Your task to perform on an android device: What's on my calendar today? Image 0: 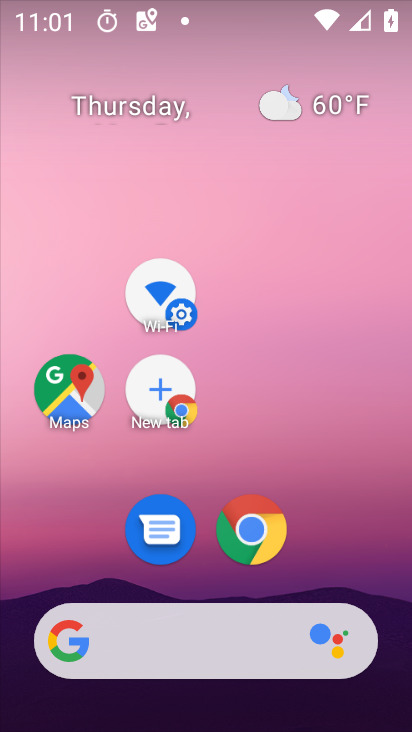
Step 0: drag from (342, 707) to (66, 50)
Your task to perform on an android device: What's on my calendar today? Image 1: 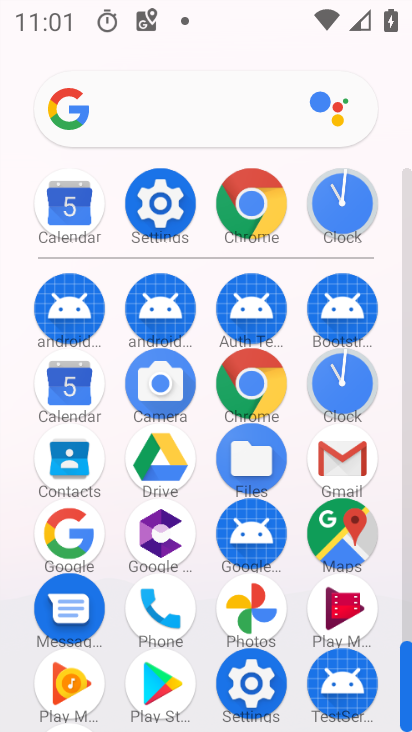
Step 1: click (82, 391)
Your task to perform on an android device: What's on my calendar today? Image 2: 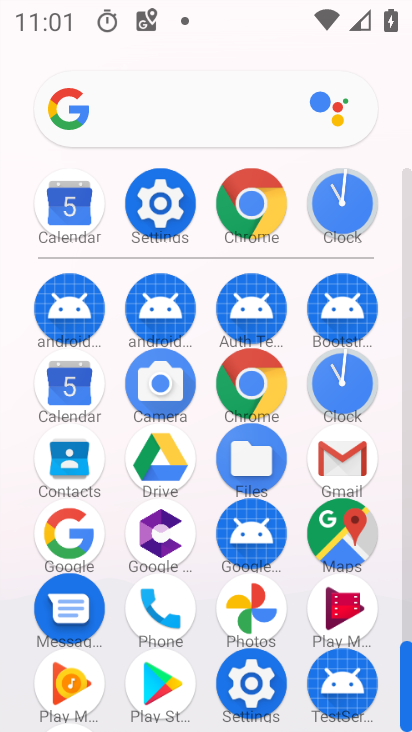
Step 2: click (82, 391)
Your task to perform on an android device: What's on my calendar today? Image 3: 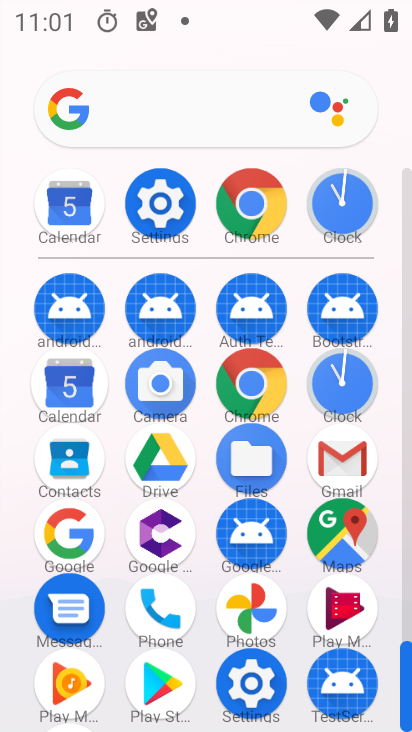
Step 3: click (82, 391)
Your task to perform on an android device: What's on my calendar today? Image 4: 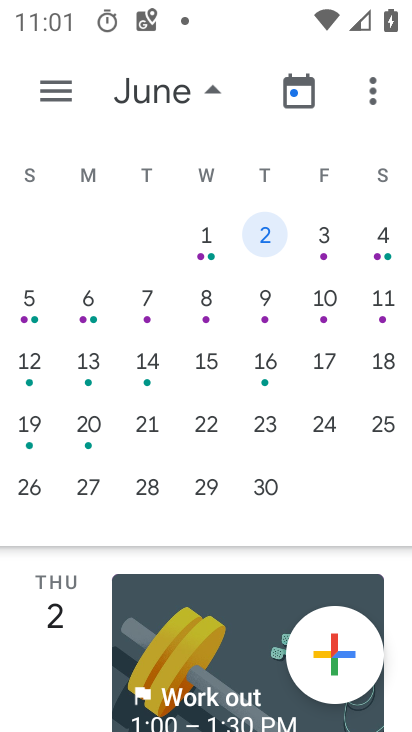
Step 4: drag from (85, 372) to (376, 365)
Your task to perform on an android device: What's on my calendar today? Image 5: 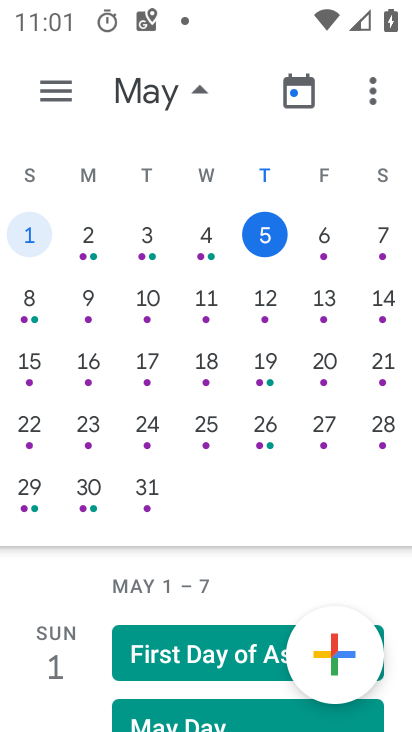
Step 5: click (201, 295)
Your task to perform on an android device: What's on my calendar today? Image 6: 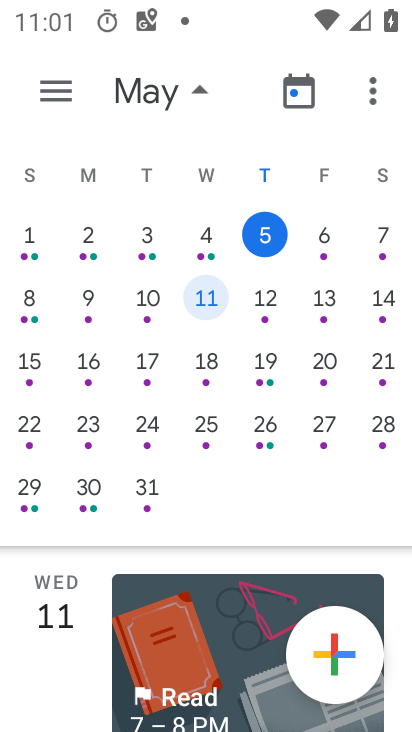
Step 6: task complete